Your task to perform on an android device: clear history in the chrome app Image 0: 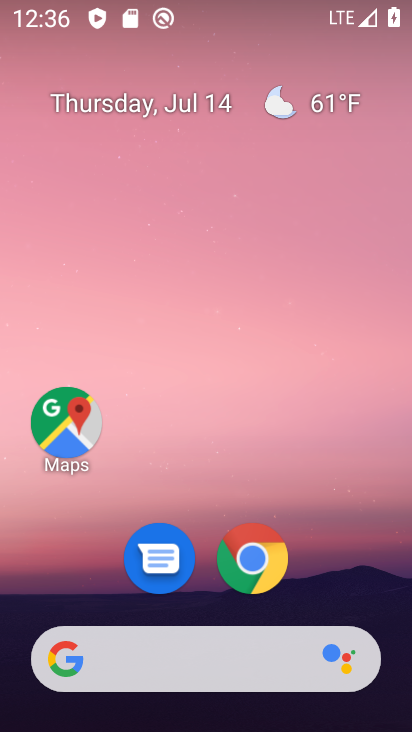
Step 0: click (237, 557)
Your task to perform on an android device: clear history in the chrome app Image 1: 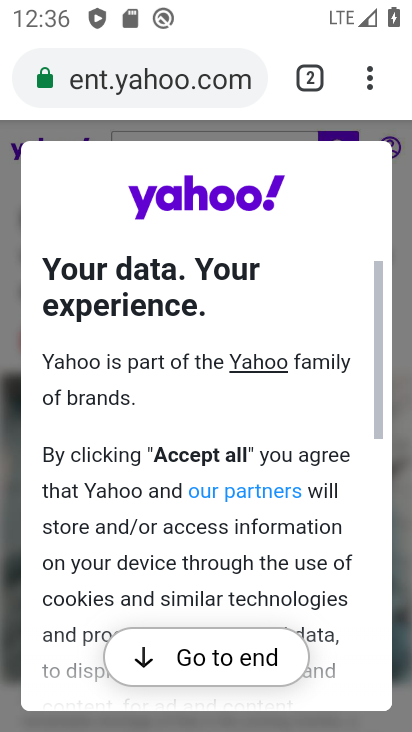
Step 1: click (369, 78)
Your task to perform on an android device: clear history in the chrome app Image 2: 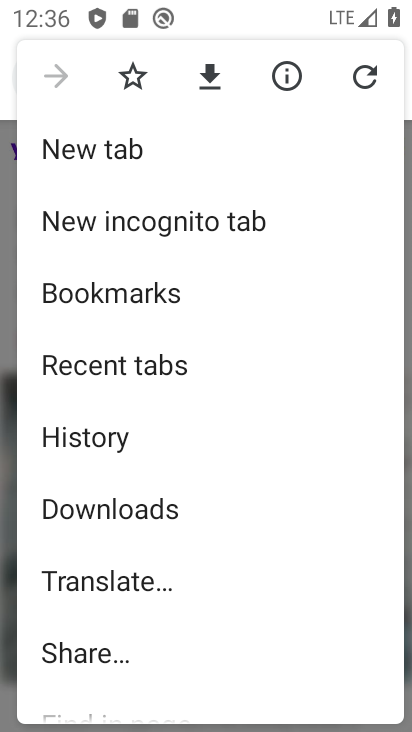
Step 2: click (102, 426)
Your task to perform on an android device: clear history in the chrome app Image 3: 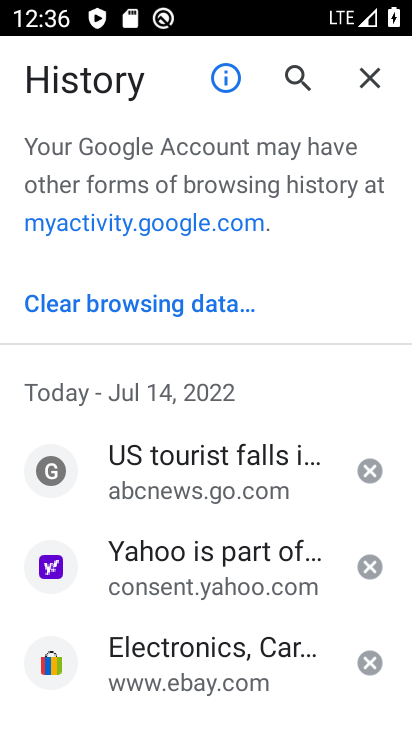
Step 3: click (188, 314)
Your task to perform on an android device: clear history in the chrome app Image 4: 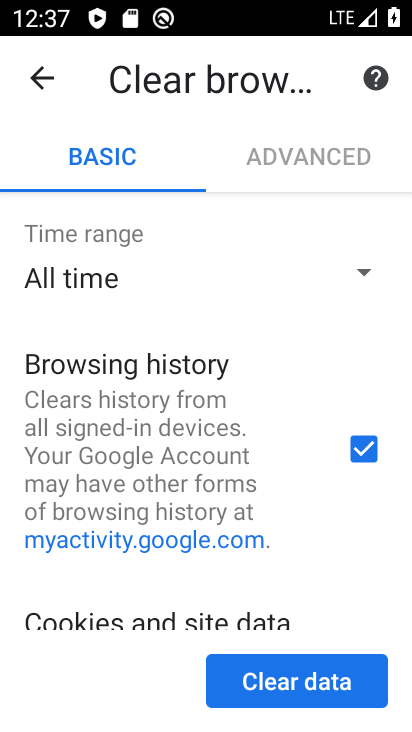
Step 4: drag from (191, 533) to (225, 364)
Your task to perform on an android device: clear history in the chrome app Image 5: 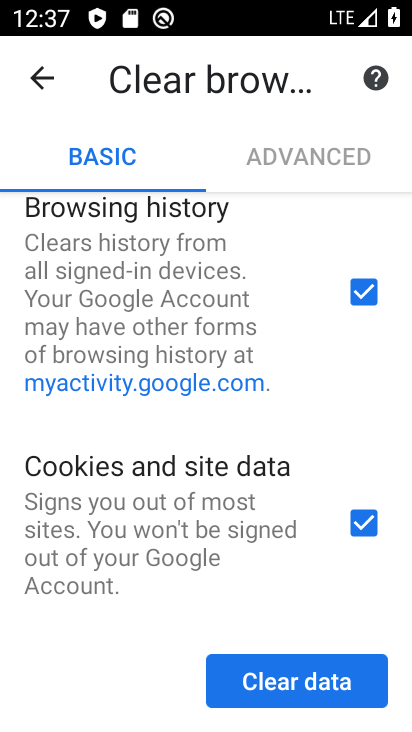
Step 5: click (258, 674)
Your task to perform on an android device: clear history in the chrome app Image 6: 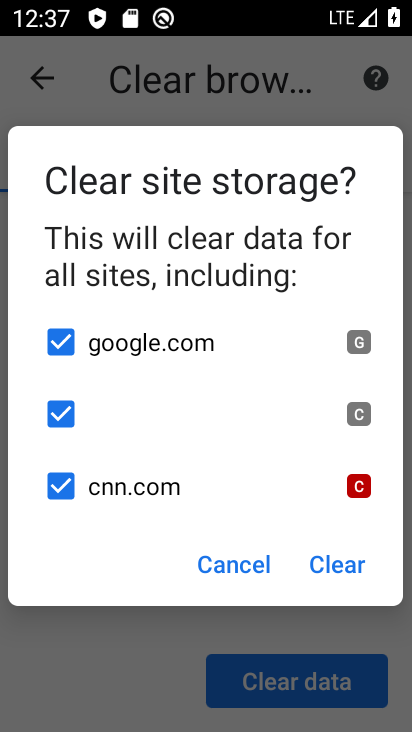
Step 6: click (337, 548)
Your task to perform on an android device: clear history in the chrome app Image 7: 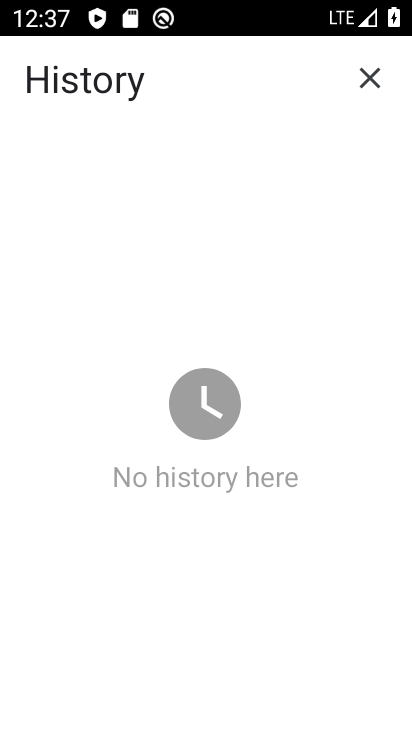
Step 7: task complete